Your task to perform on an android device: Clear the shopping cart on bestbuy. Add "jbl flip 4" to the cart on bestbuy, then select checkout. Image 0: 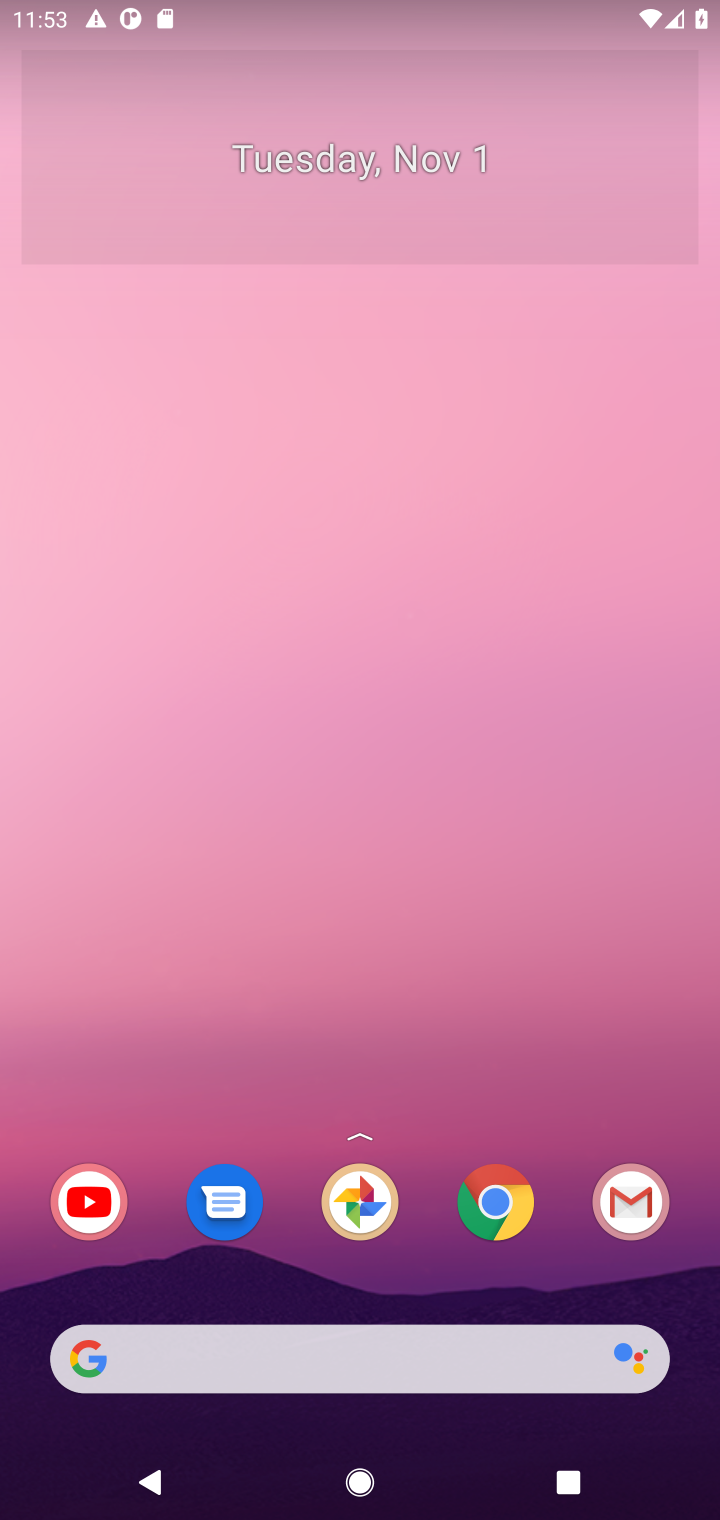
Step 0: click (476, 1219)
Your task to perform on an android device: Clear the shopping cart on bestbuy. Add "jbl flip 4" to the cart on bestbuy, then select checkout. Image 1: 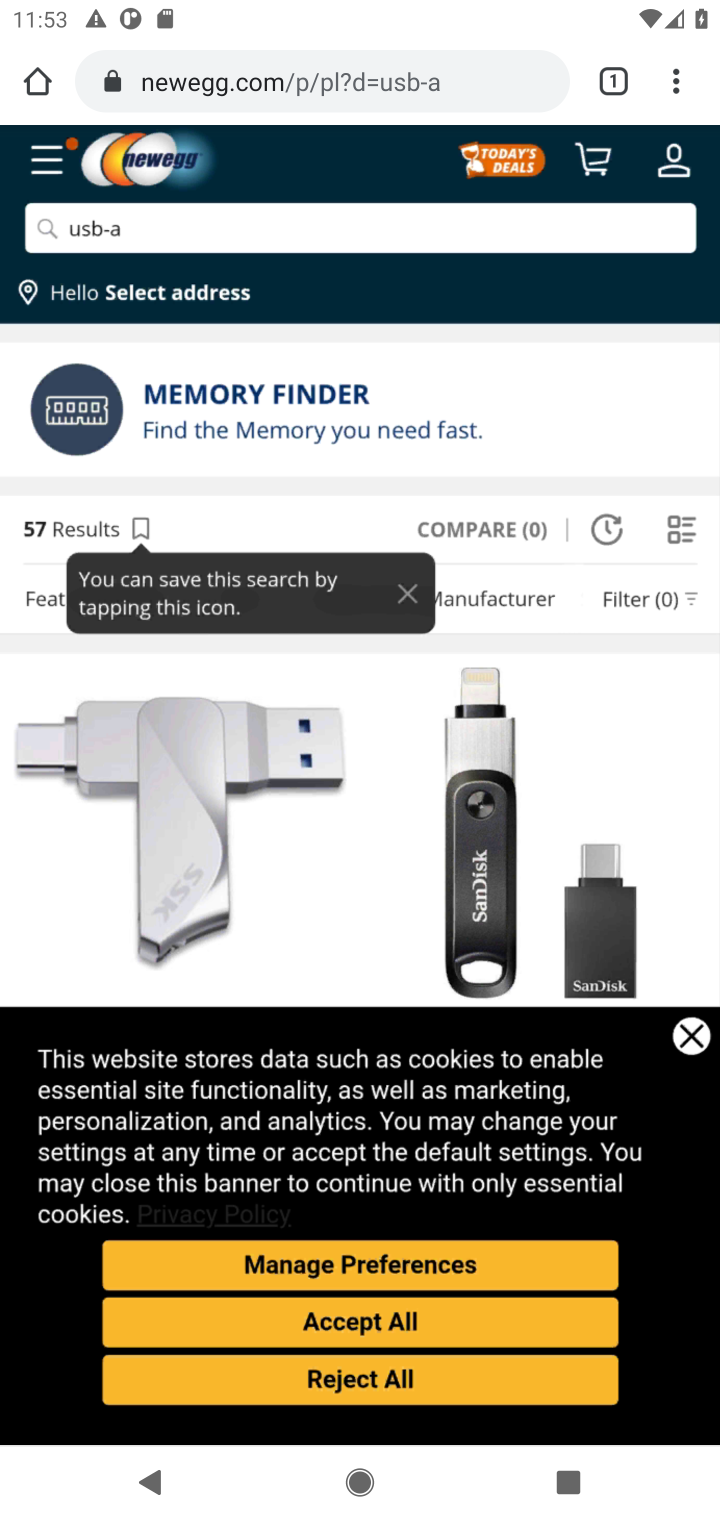
Step 1: click (253, 98)
Your task to perform on an android device: Clear the shopping cart on bestbuy. Add "jbl flip 4" to the cart on bestbuy, then select checkout. Image 2: 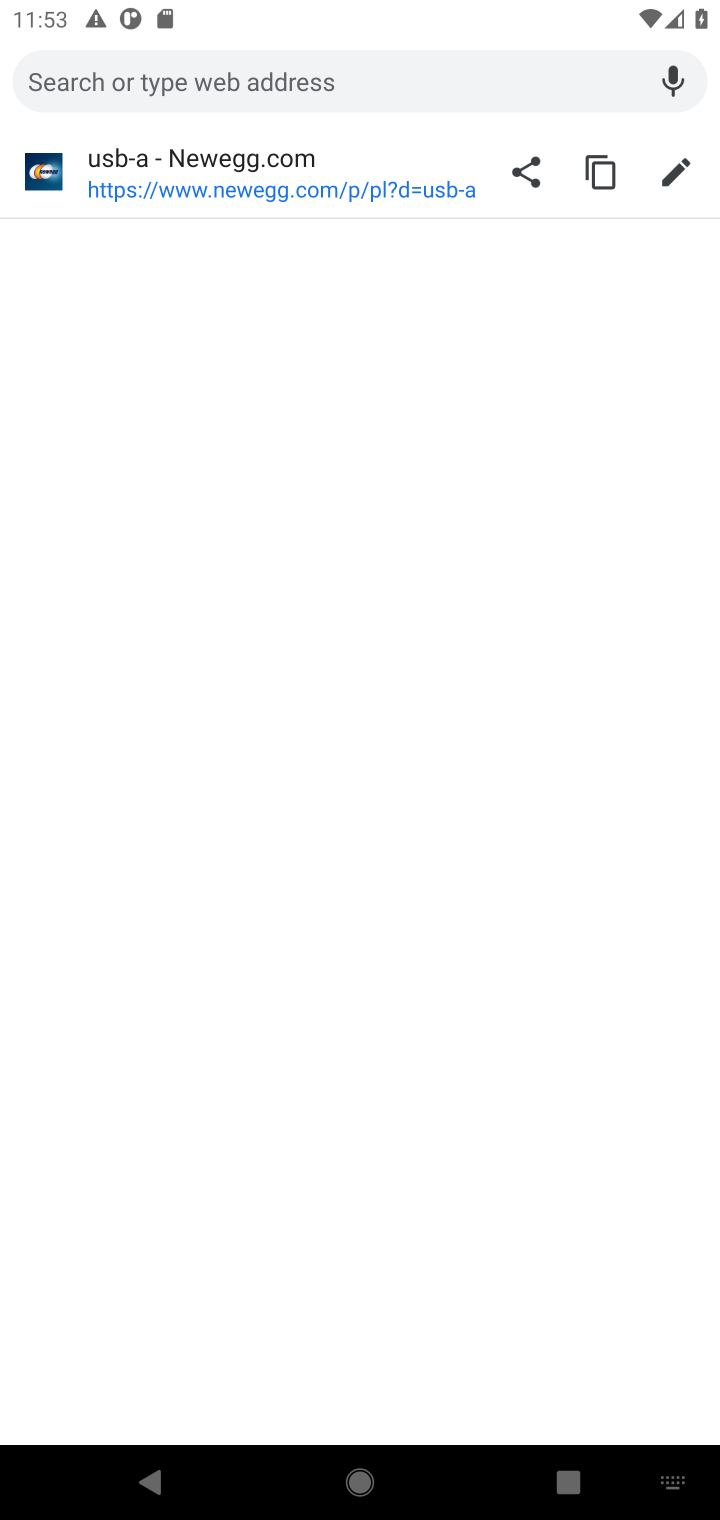
Step 2: type "bestbuy.com"
Your task to perform on an android device: Clear the shopping cart on bestbuy. Add "jbl flip 4" to the cart on bestbuy, then select checkout. Image 3: 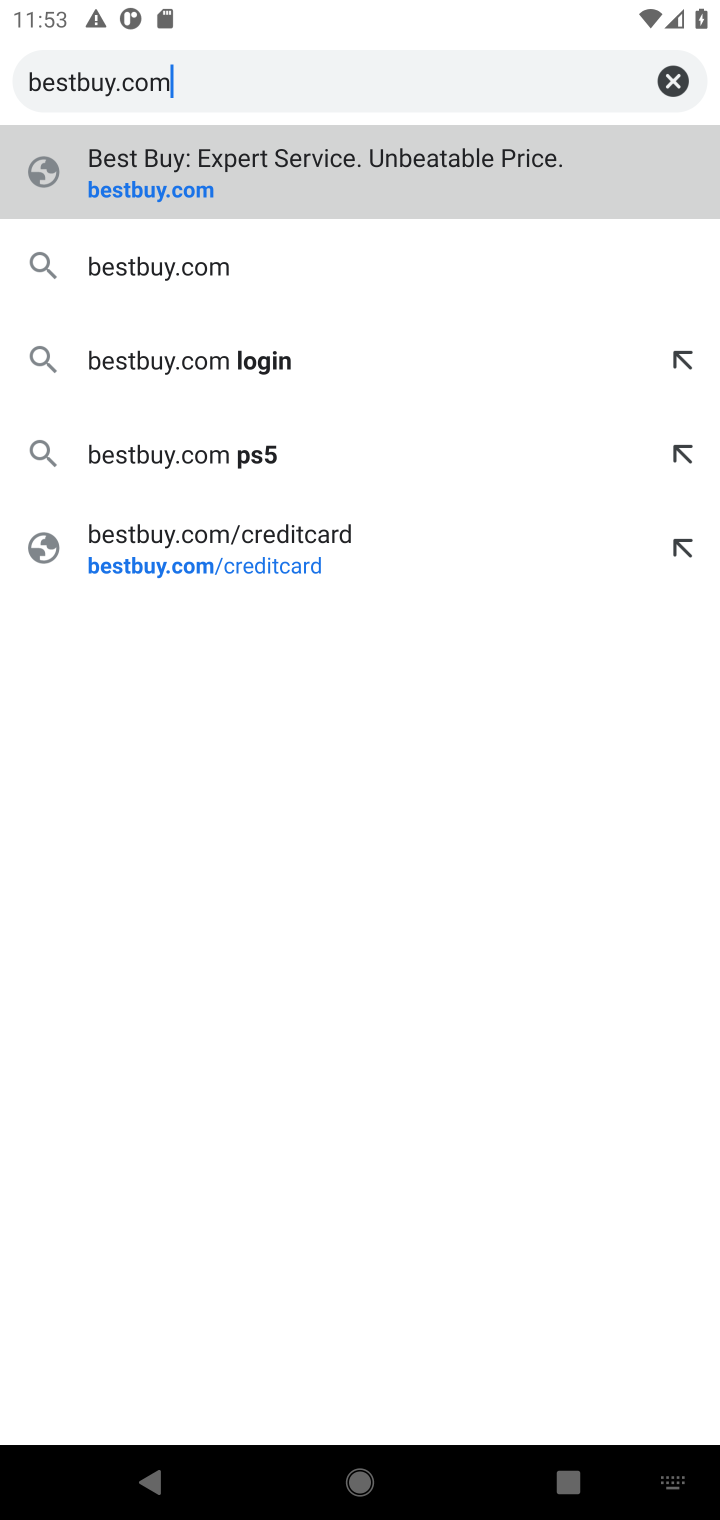
Step 3: click (469, 142)
Your task to perform on an android device: Clear the shopping cart on bestbuy. Add "jbl flip 4" to the cart on bestbuy, then select checkout. Image 4: 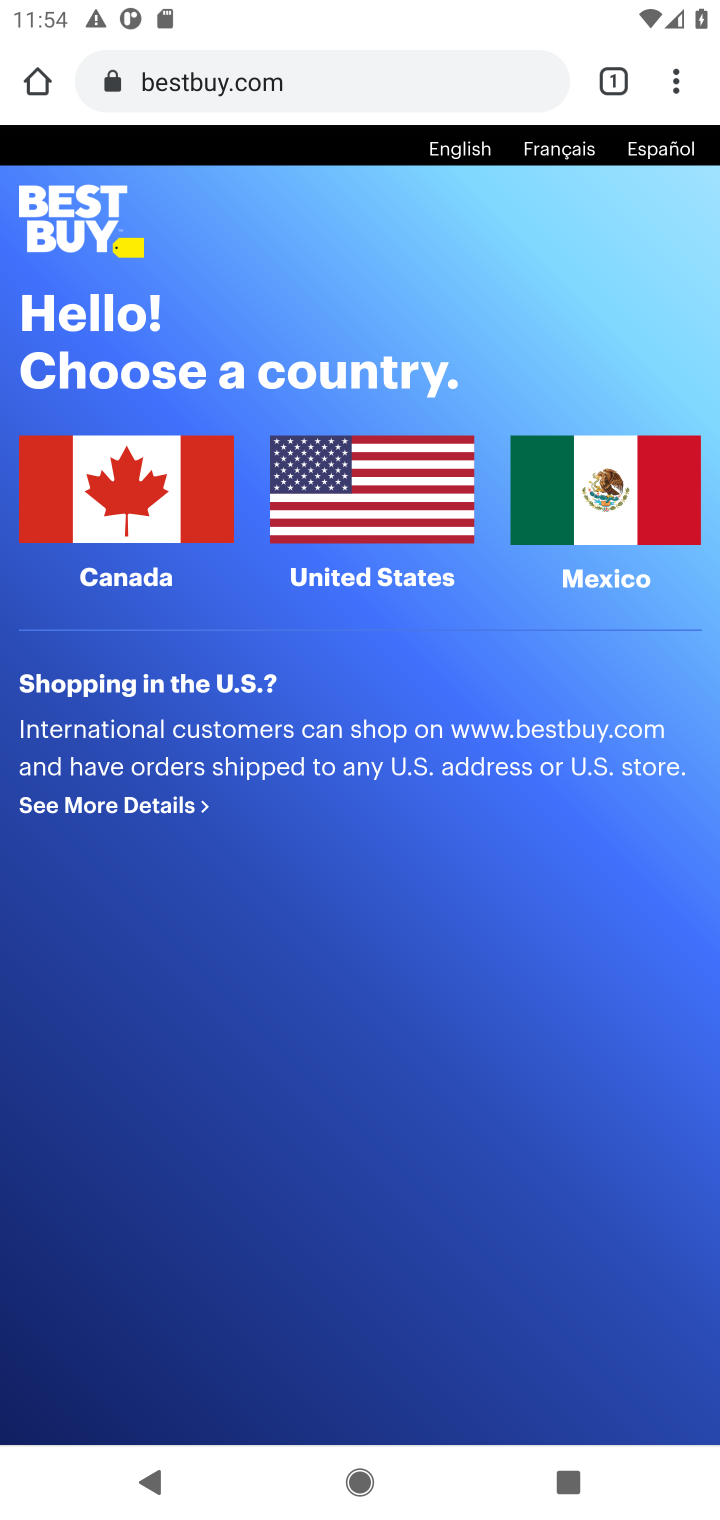
Step 4: click (354, 478)
Your task to perform on an android device: Clear the shopping cart on bestbuy. Add "jbl flip 4" to the cart on bestbuy, then select checkout. Image 5: 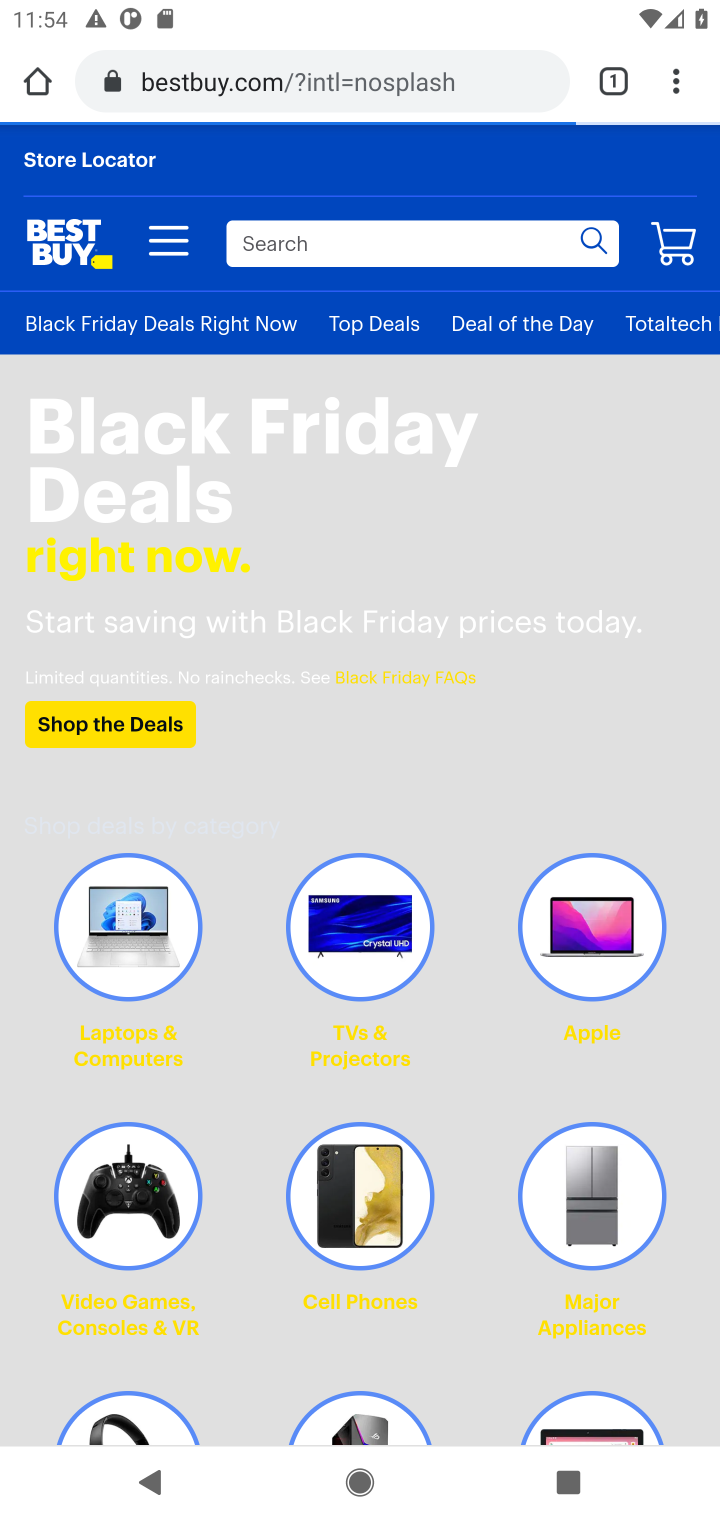
Step 5: click (660, 275)
Your task to perform on an android device: Clear the shopping cart on bestbuy. Add "jbl flip 4" to the cart on bestbuy, then select checkout. Image 6: 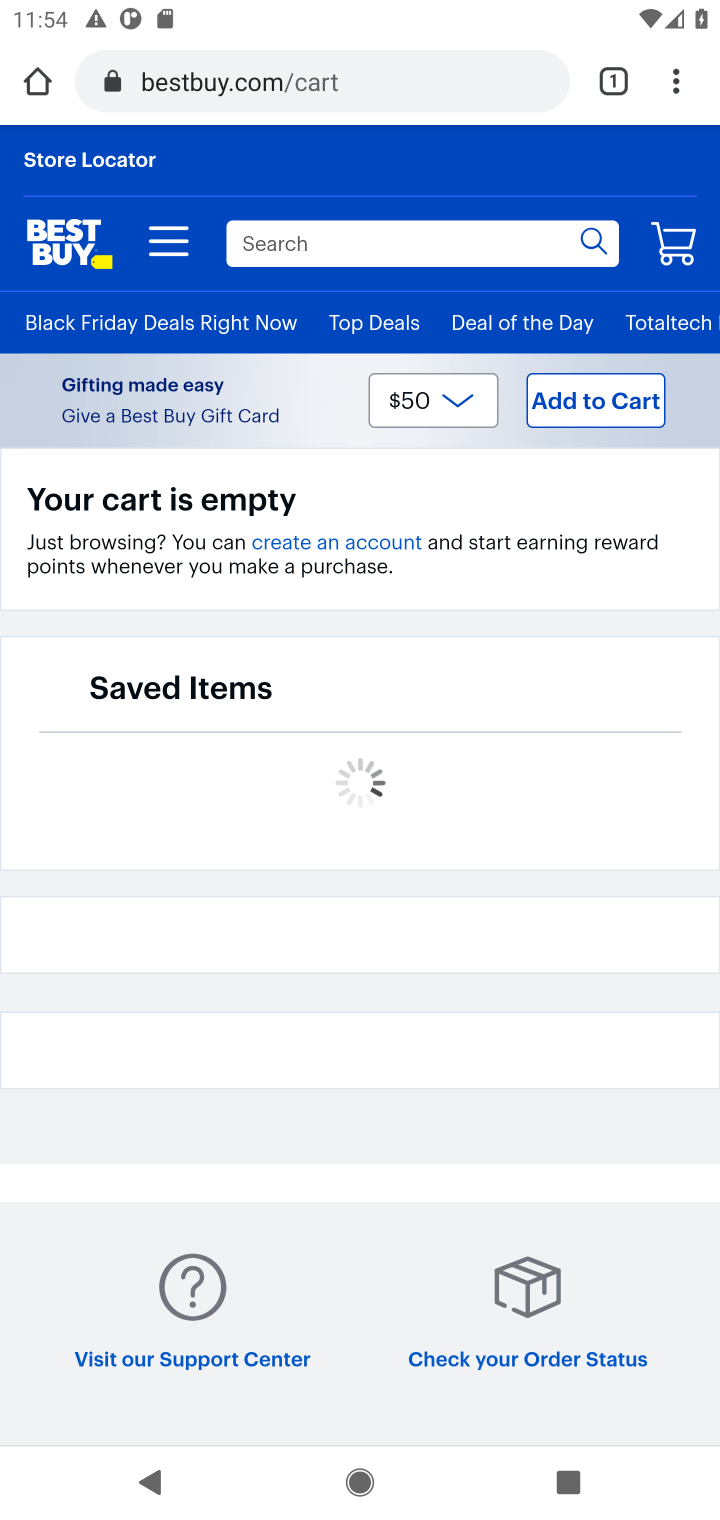
Step 6: click (374, 250)
Your task to perform on an android device: Clear the shopping cart on bestbuy. Add "jbl flip 4" to the cart on bestbuy, then select checkout. Image 7: 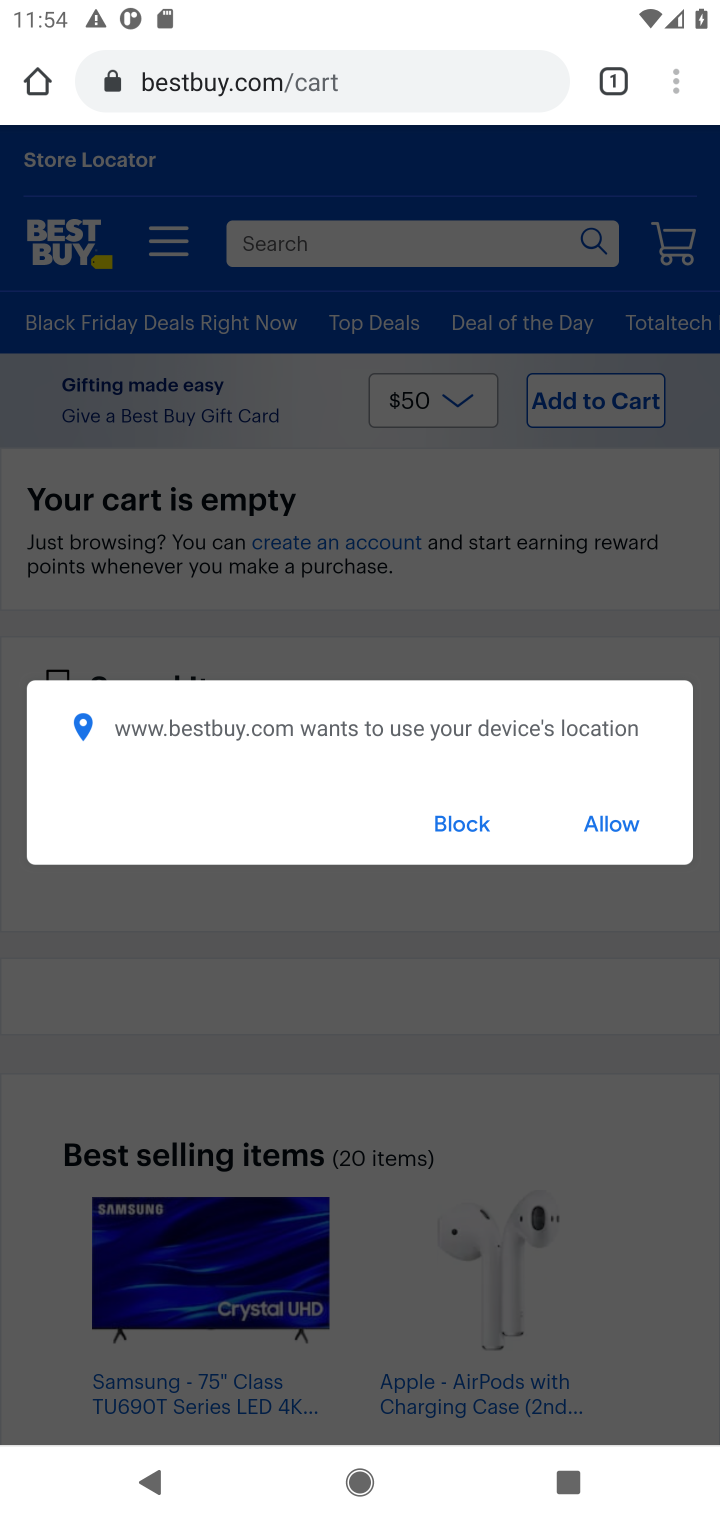
Step 7: click (603, 824)
Your task to perform on an android device: Clear the shopping cart on bestbuy. Add "jbl flip 4" to the cart on bestbuy, then select checkout. Image 8: 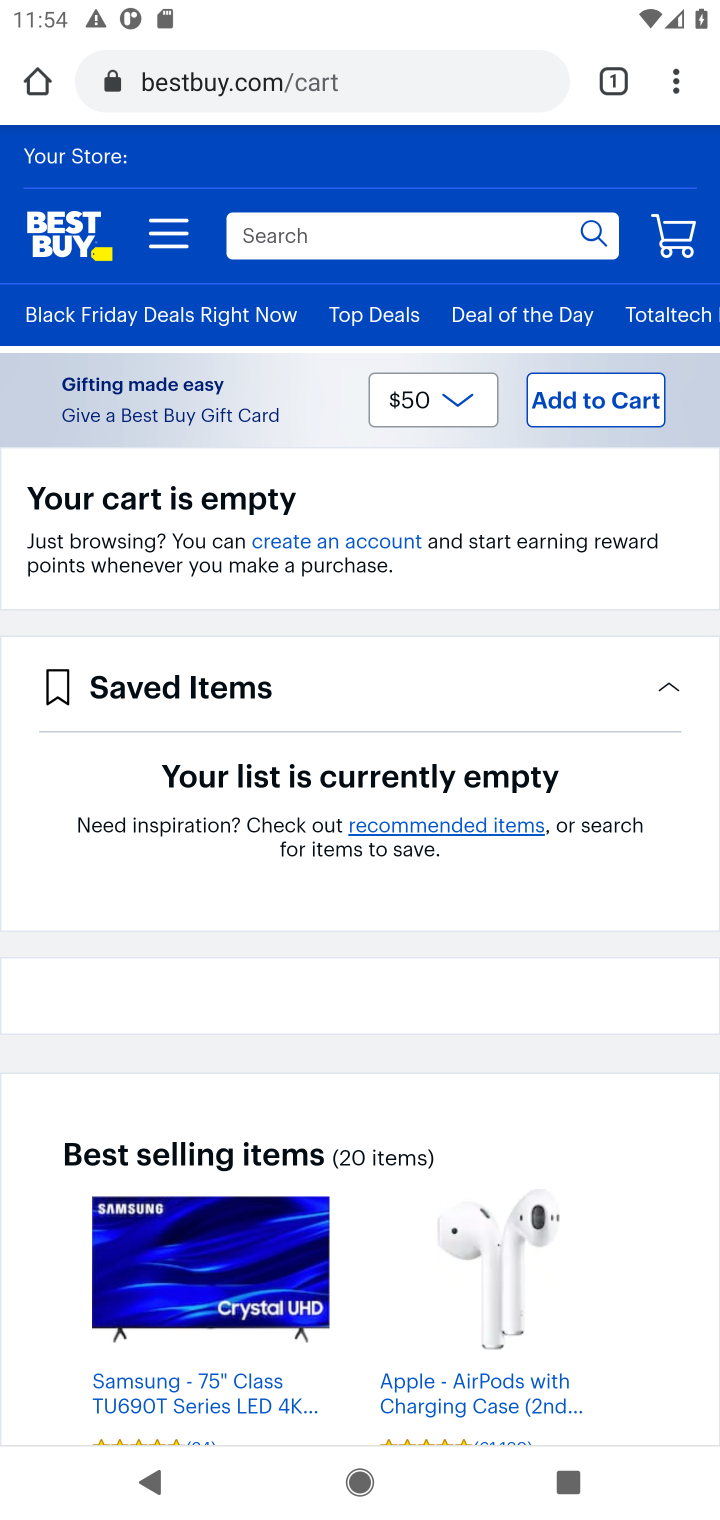
Step 8: click (342, 236)
Your task to perform on an android device: Clear the shopping cart on bestbuy. Add "jbl flip 4" to the cart on bestbuy, then select checkout. Image 9: 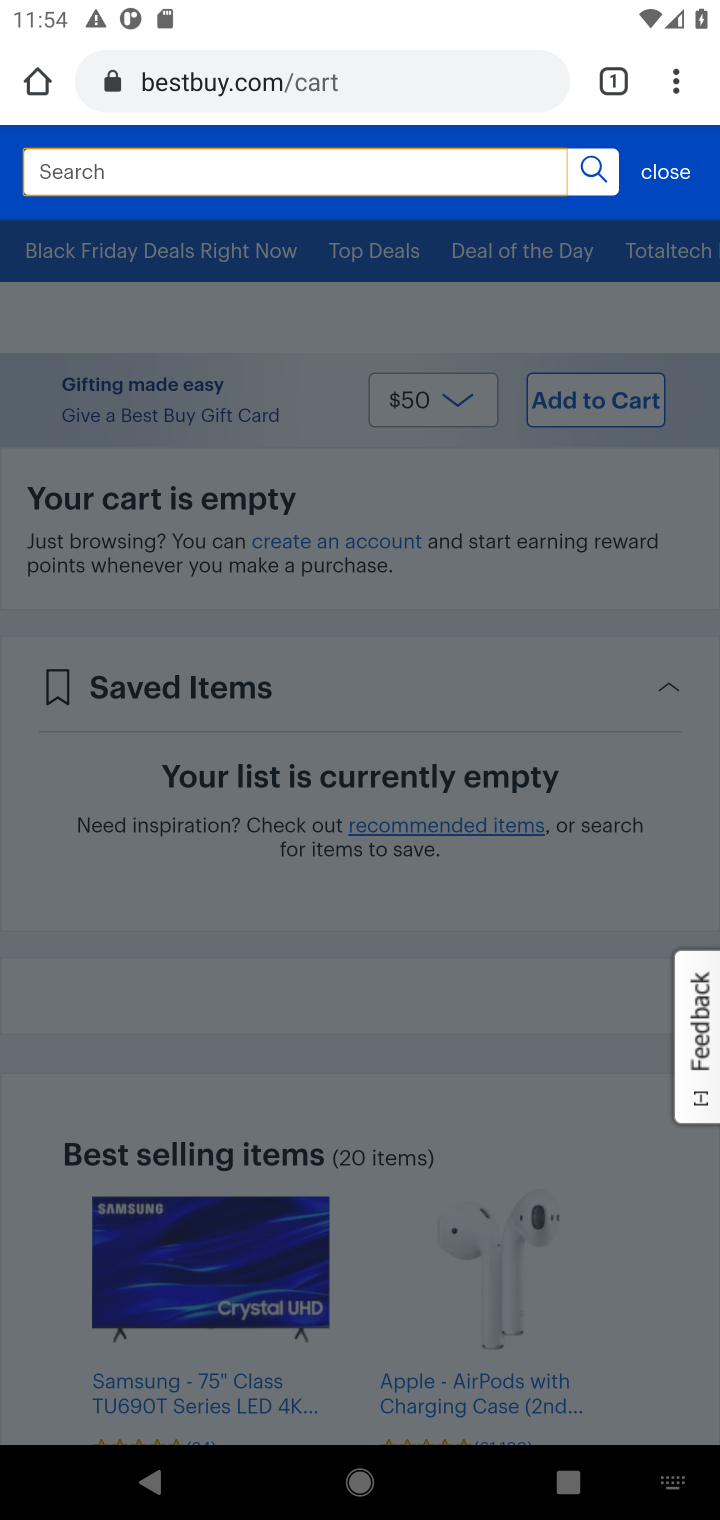
Step 9: type "jbl flip 4"
Your task to perform on an android device: Clear the shopping cart on bestbuy. Add "jbl flip 4" to the cart on bestbuy, then select checkout. Image 10: 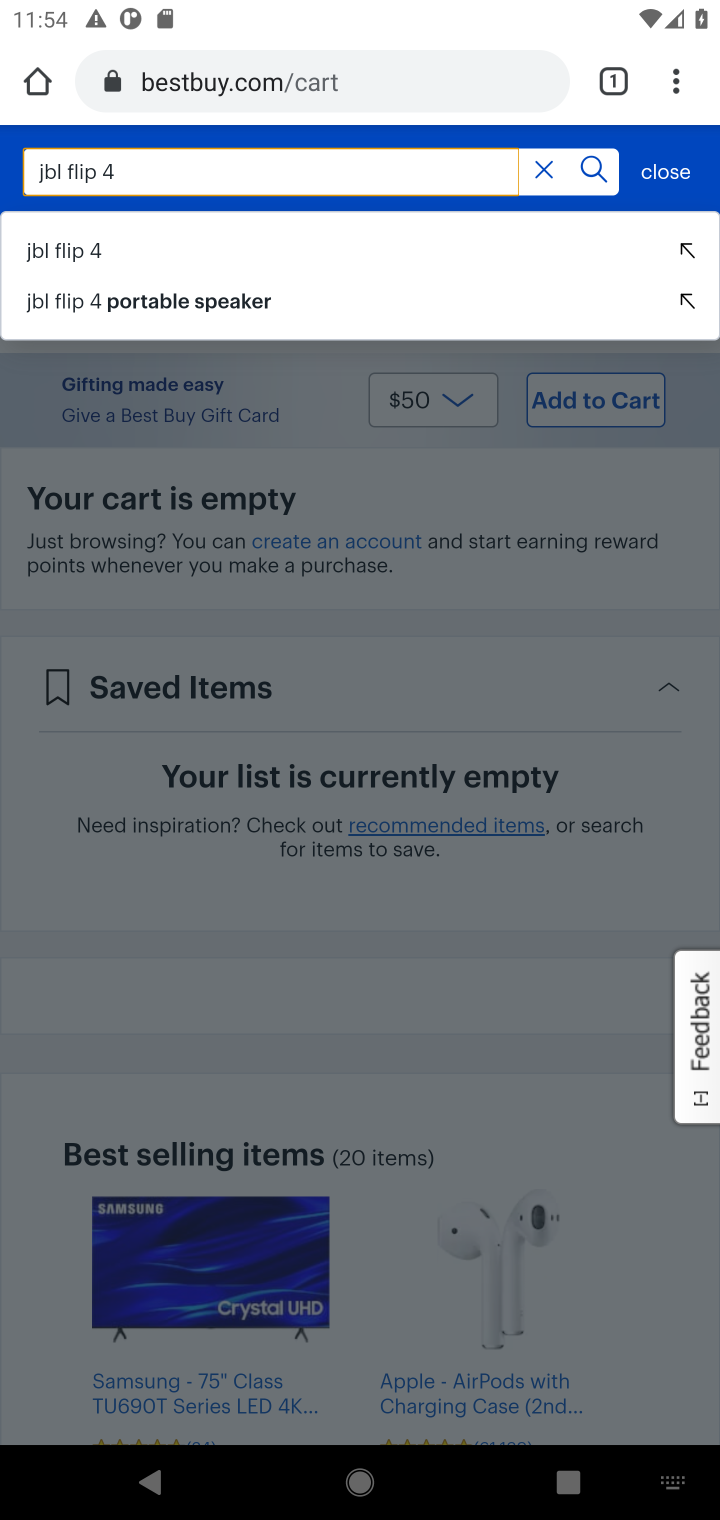
Step 10: press enter
Your task to perform on an android device: Clear the shopping cart on bestbuy. Add "jbl flip 4" to the cart on bestbuy, then select checkout. Image 11: 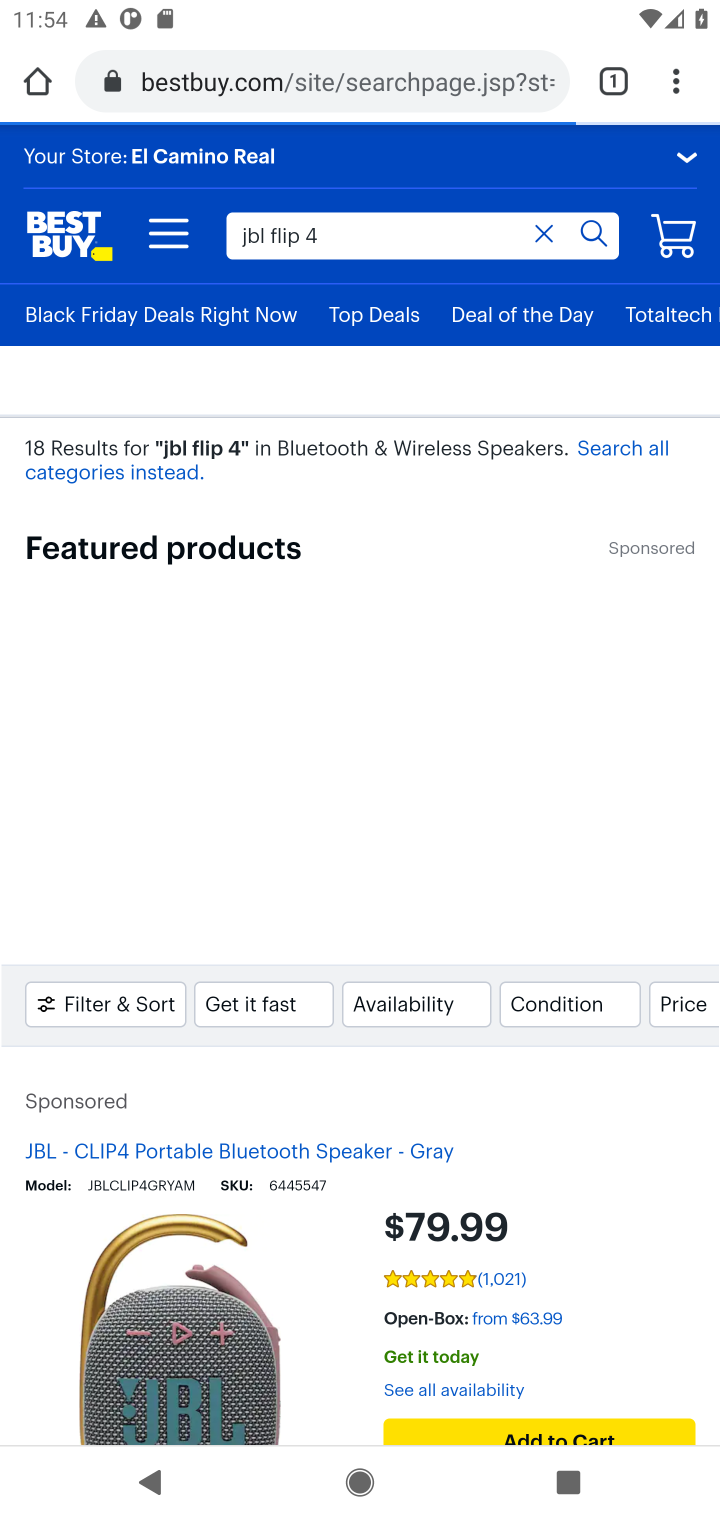
Step 11: task complete